Your task to perform on an android device: Is it going to rain tomorrow? Image 0: 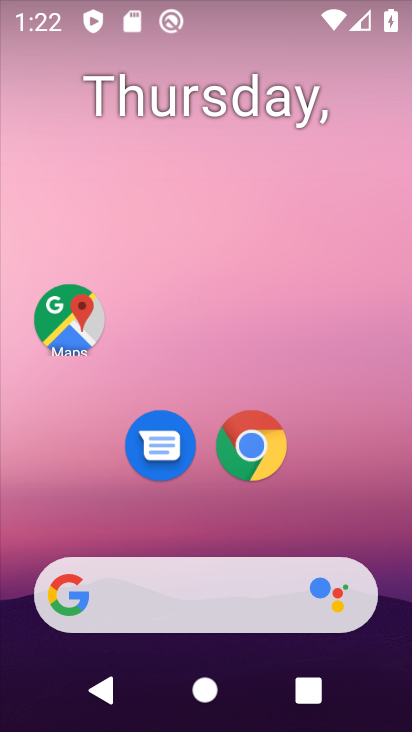
Step 0: press home button
Your task to perform on an android device: Is it going to rain tomorrow? Image 1: 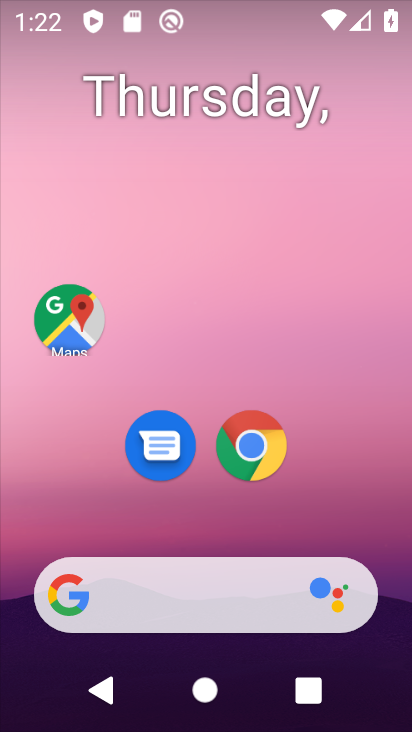
Step 1: click (137, 593)
Your task to perform on an android device: Is it going to rain tomorrow? Image 2: 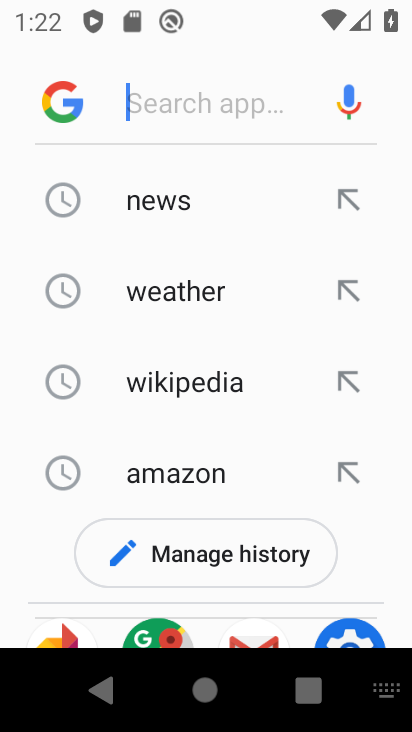
Step 2: click (182, 303)
Your task to perform on an android device: Is it going to rain tomorrow? Image 3: 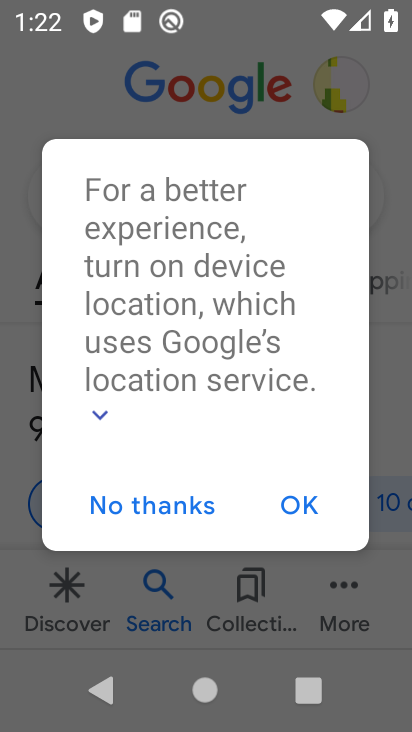
Step 3: click (189, 519)
Your task to perform on an android device: Is it going to rain tomorrow? Image 4: 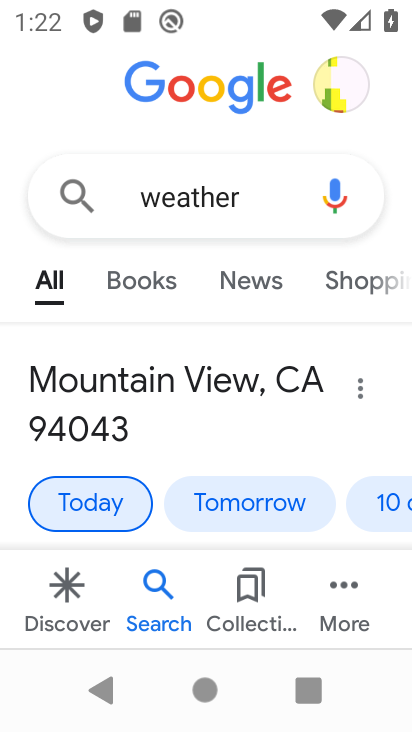
Step 4: click (258, 496)
Your task to perform on an android device: Is it going to rain tomorrow? Image 5: 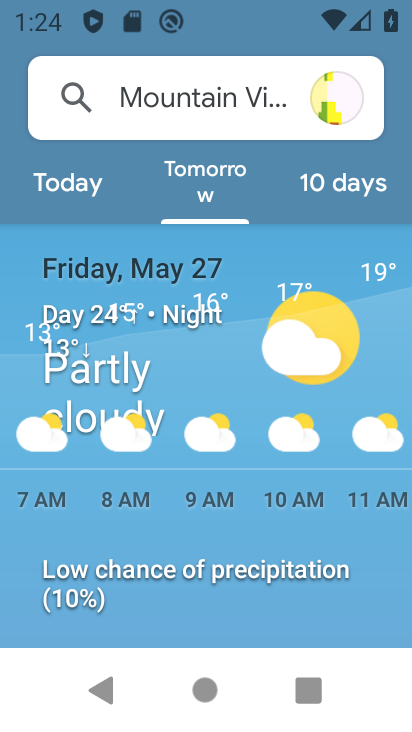
Step 5: task complete